Your task to perform on an android device: delete browsing data in the chrome app Image 0: 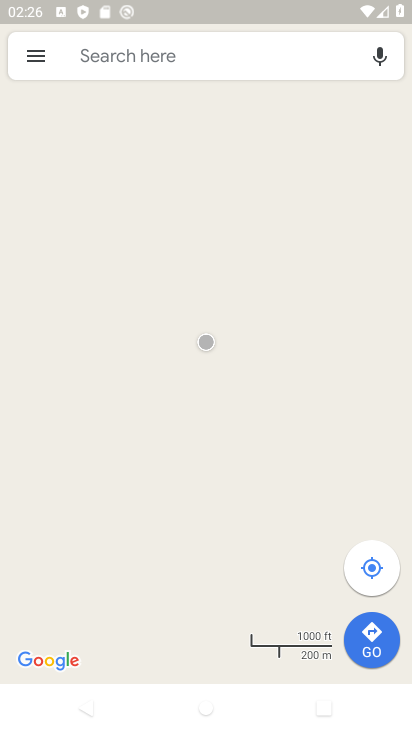
Step 0: press back button
Your task to perform on an android device: delete browsing data in the chrome app Image 1: 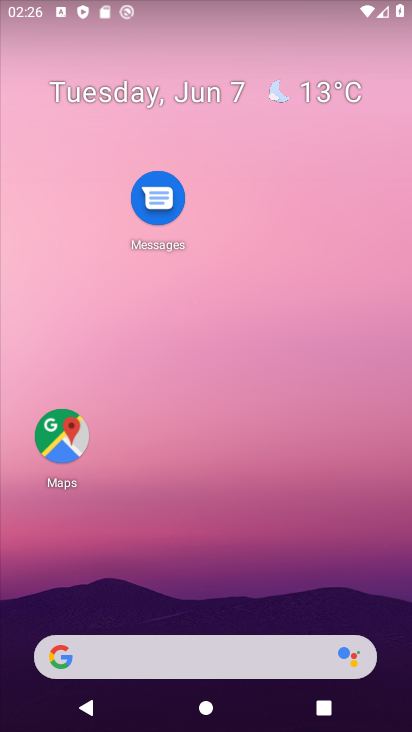
Step 1: click (184, 570)
Your task to perform on an android device: delete browsing data in the chrome app Image 2: 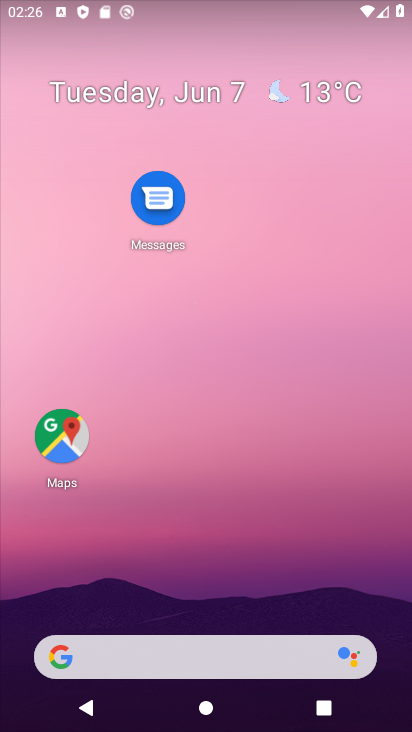
Step 2: drag from (206, 597) to (212, 81)
Your task to perform on an android device: delete browsing data in the chrome app Image 3: 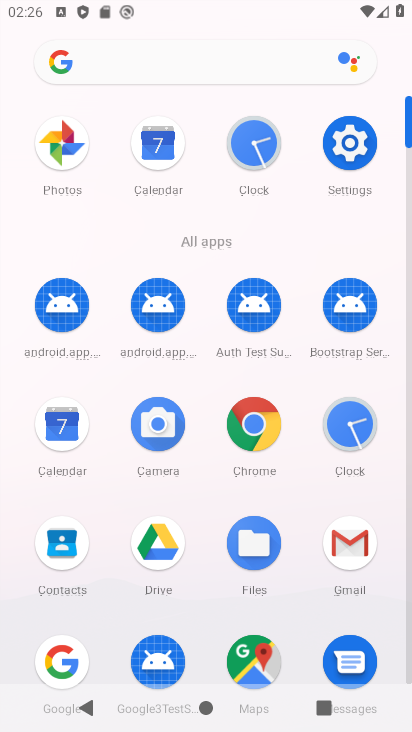
Step 3: click (241, 459)
Your task to perform on an android device: delete browsing data in the chrome app Image 4: 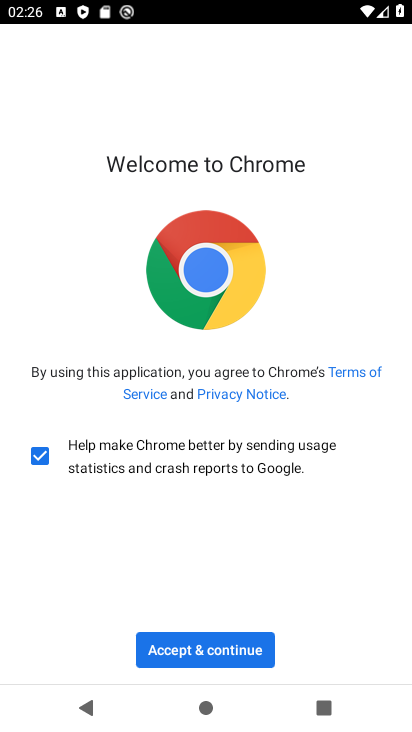
Step 4: click (201, 633)
Your task to perform on an android device: delete browsing data in the chrome app Image 5: 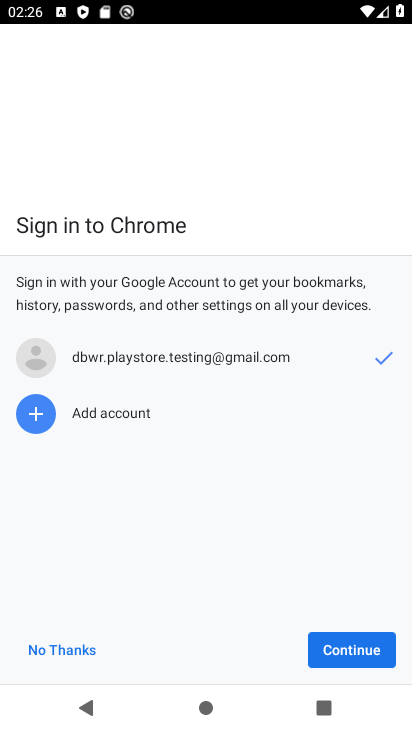
Step 5: click (370, 657)
Your task to perform on an android device: delete browsing data in the chrome app Image 6: 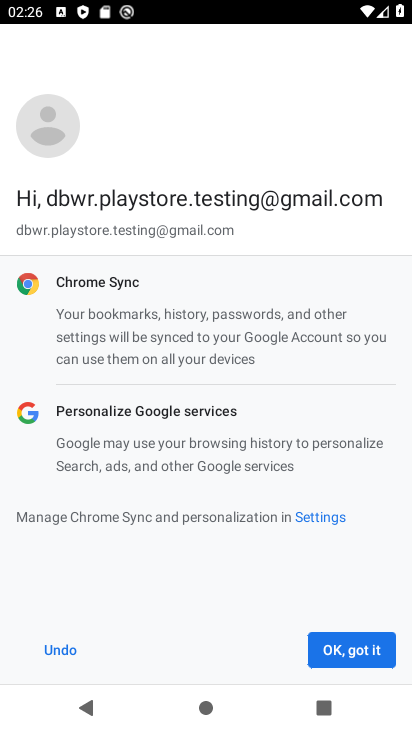
Step 6: click (370, 657)
Your task to perform on an android device: delete browsing data in the chrome app Image 7: 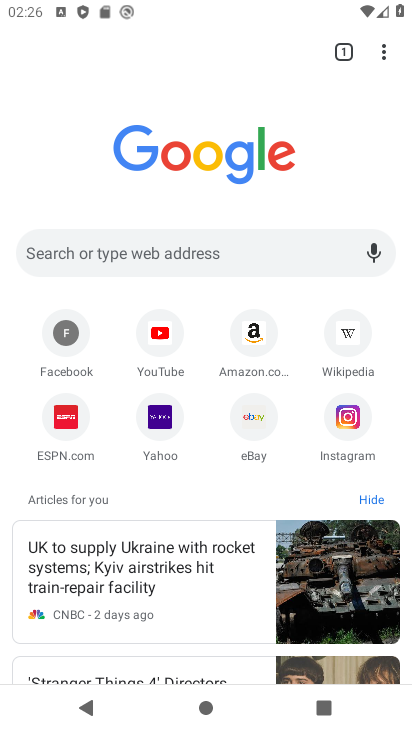
Step 7: click (385, 50)
Your task to perform on an android device: delete browsing data in the chrome app Image 8: 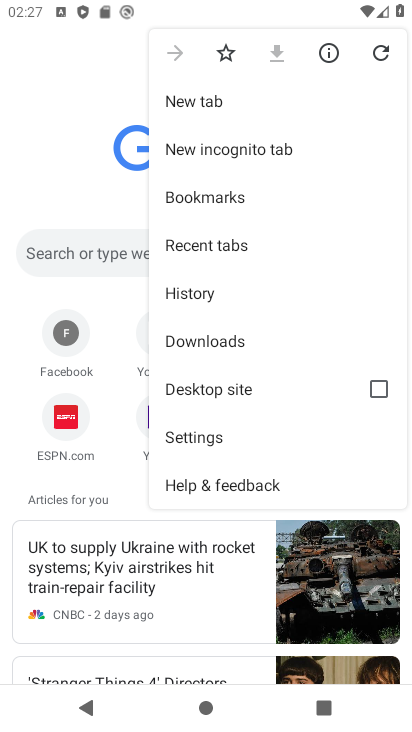
Step 8: click (192, 304)
Your task to perform on an android device: delete browsing data in the chrome app Image 9: 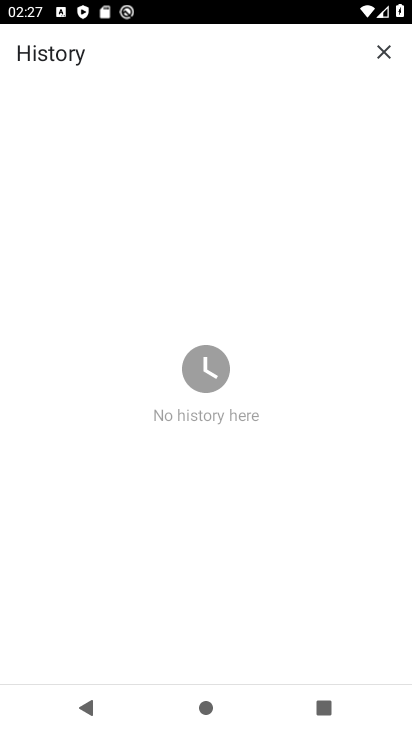
Step 9: task complete